Your task to perform on an android device: change your default location settings in chrome Image 0: 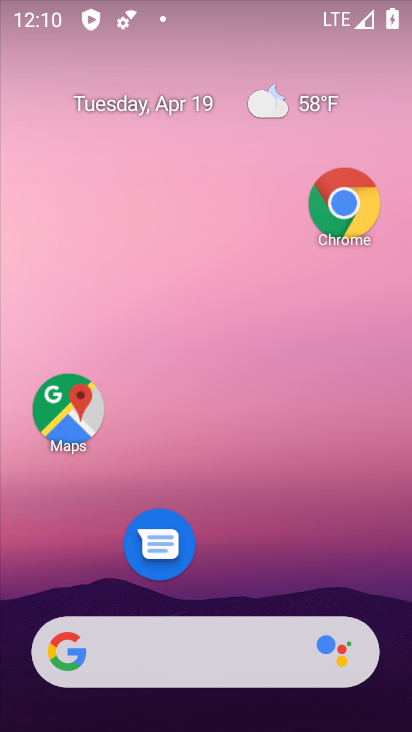
Step 0: drag from (299, 456) to (275, 80)
Your task to perform on an android device: change your default location settings in chrome Image 1: 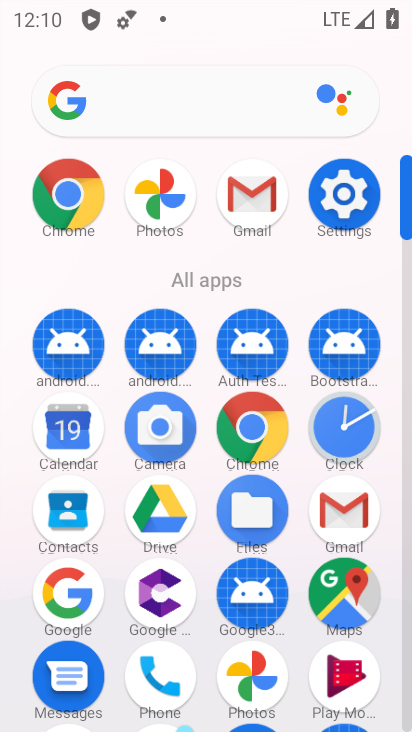
Step 1: click (258, 442)
Your task to perform on an android device: change your default location settings in chrome Image 2: 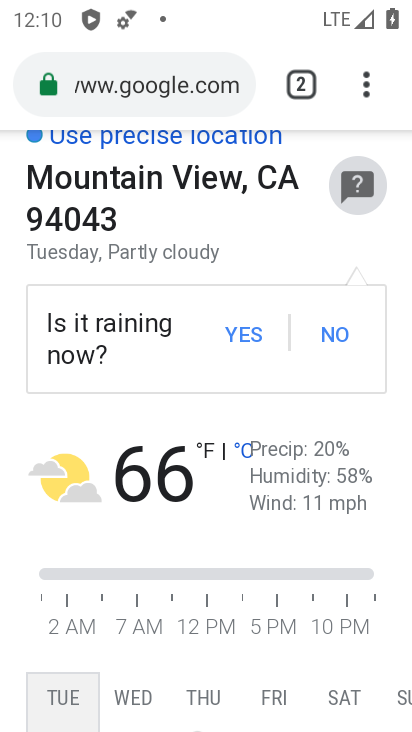
Step 2: click (361, 77)
Your task to perform on an android device: change your default location settings in chrome Image 3: 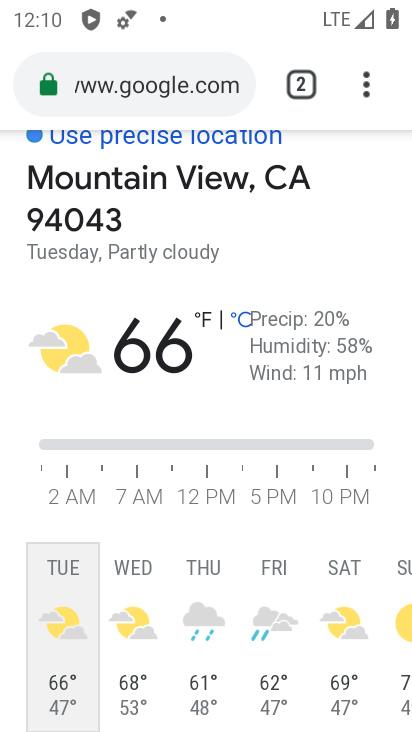
Step 3: click (367, 88)
Your task to perform on an android device: change your default location settings in chrome Image 4: 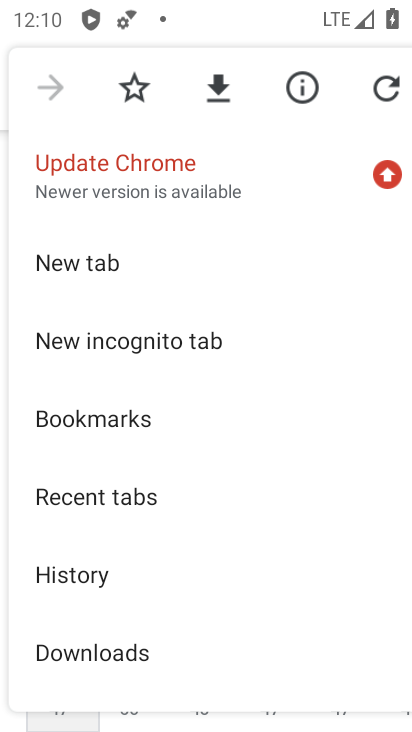
Step 4: drag from (213, 622) to (223, 219)
Your task to perform on an android device: change your default location settings in chrome Image 5: 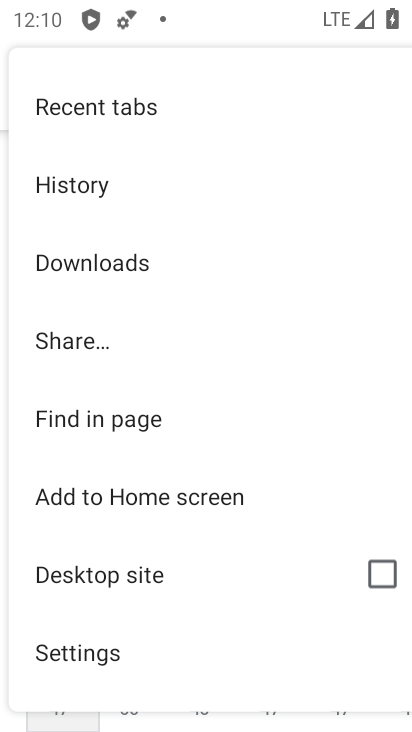
Step 5: drag from (196, 611) to (225, 186)
Your task to perform on an android device: change your default location settings in chrome Image 6: 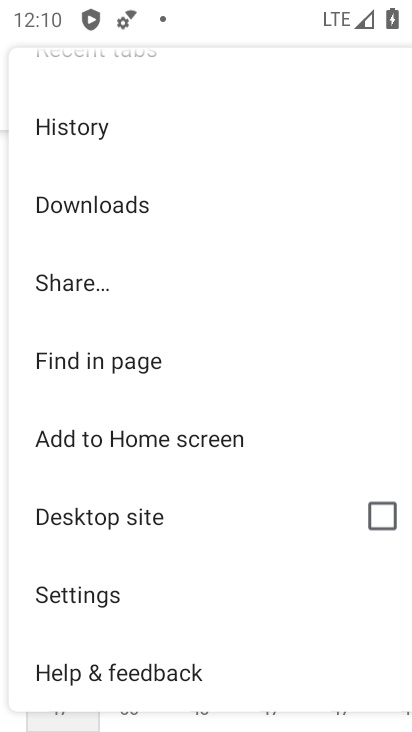
Step 6: click (105, 600)
Your task to perform on an android device: change your default location settings in chrome Image 7: 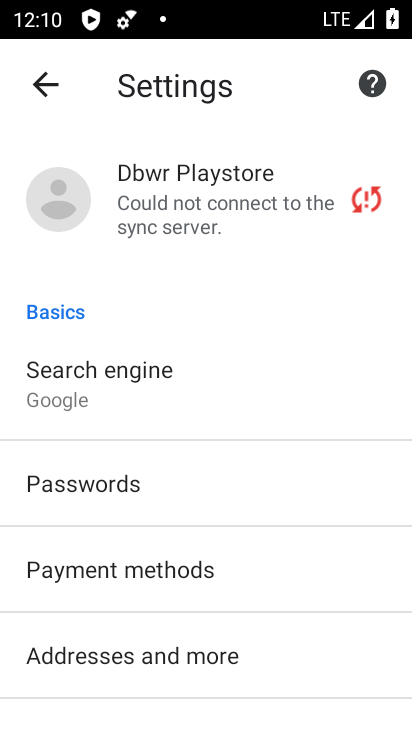
Step 7: drag from (265, 415) to (294, 128)
Your task to perform on an android device: change your default location settings in chrome Image 8: 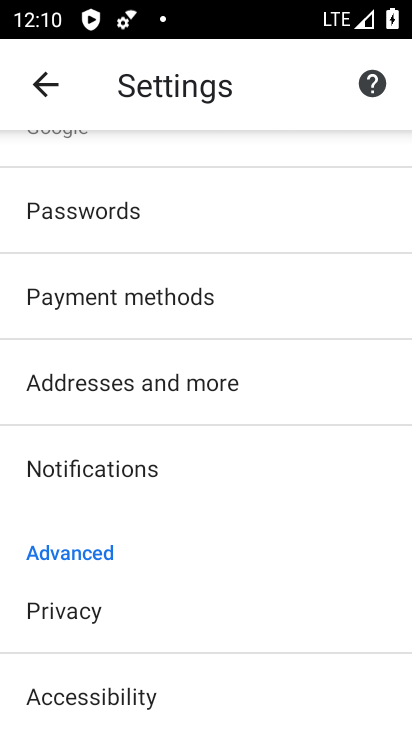
Step 8: drag from (255, 540) to (241, 188)
Your task to perform on an android device: change your default location settings in chrome Image 9: 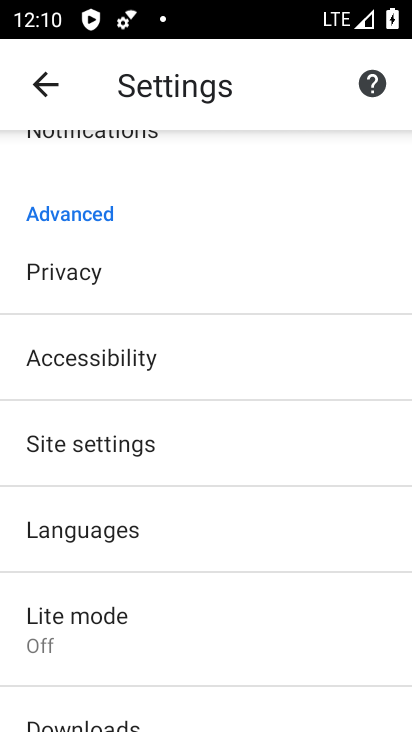
Step 9: click (139, 444)
Your task to perform on an android device: change your default location settings in chrome Image 10: 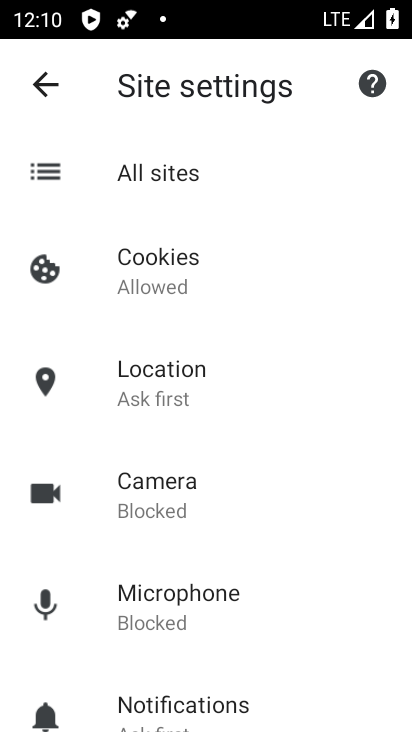
Step 10: click (172, 383)
Your task to perform on an android device: change your default location settings in chrome Image 11: 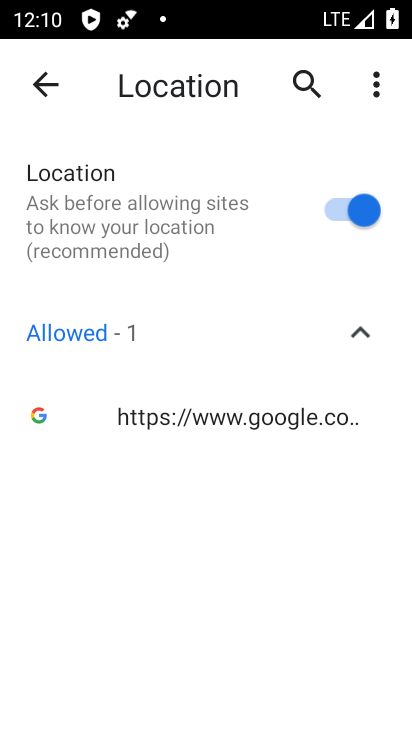
Step 11: click (337, 215)
Your task to perform on an android device: change your default location settings in chrome Image 12: 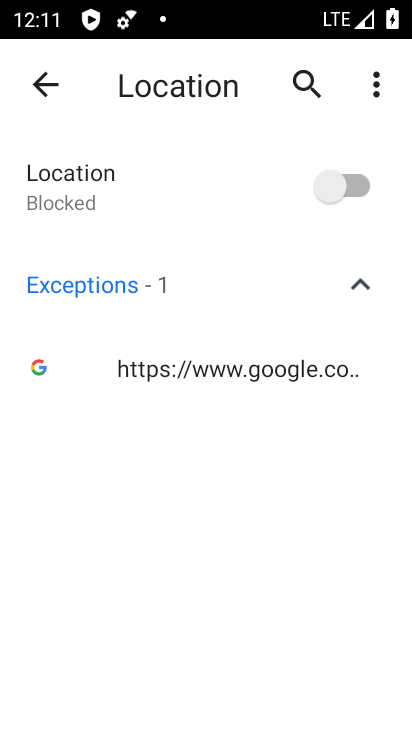
Step 12: task complete